Your task to perform on an android device: Go to Google Image 0: 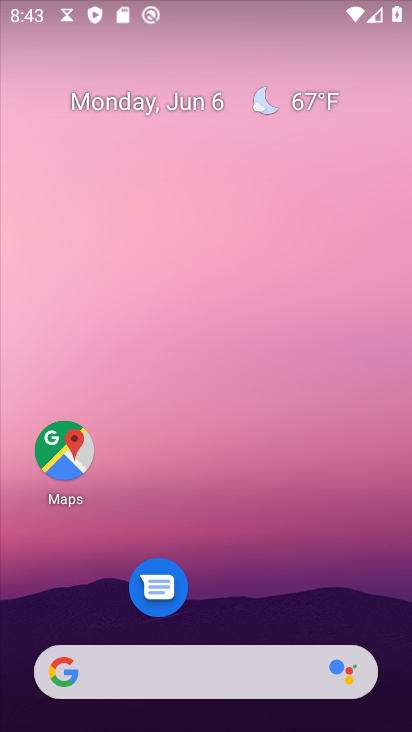
Step 0: click (154, 674)
Your task to perform on an android device: Go to Google Image 1: 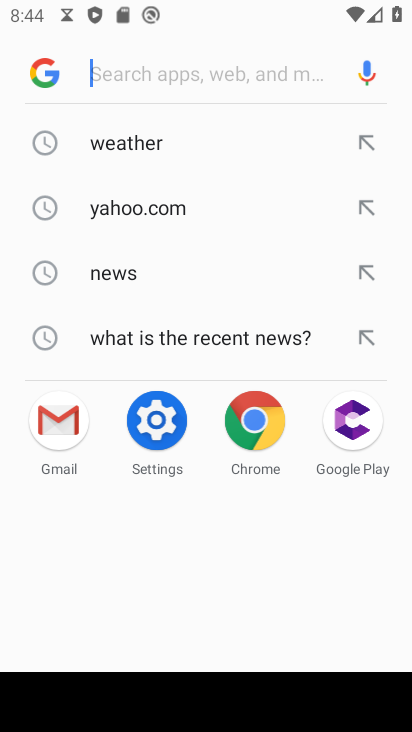
Step 1: click (42, 56)
Your task to perform on an android device: Go to Google Image 2: 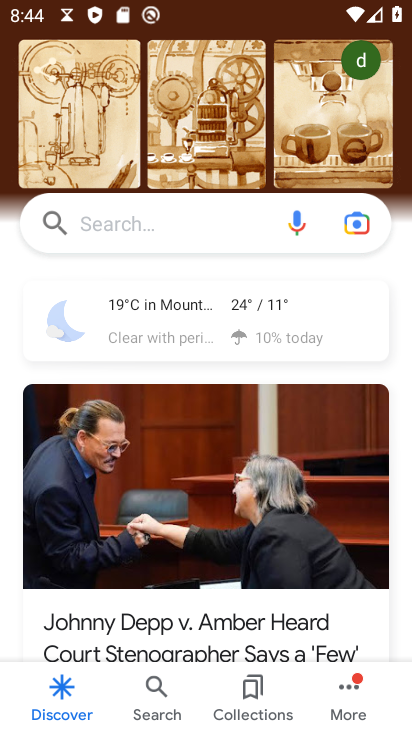
Step 2: task complete